Your task to perform on an android device: remove spam from my inbox in the gmail app Image 0: 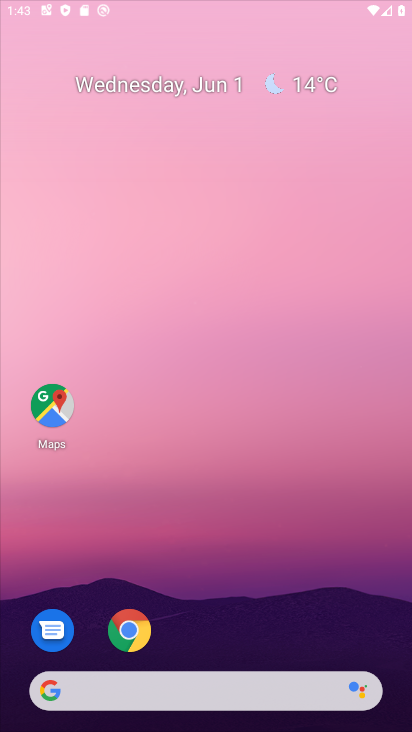
Step 0: press home button
Your task to perform on an android device: remove spam from my inbox in the gmail app Image 1: 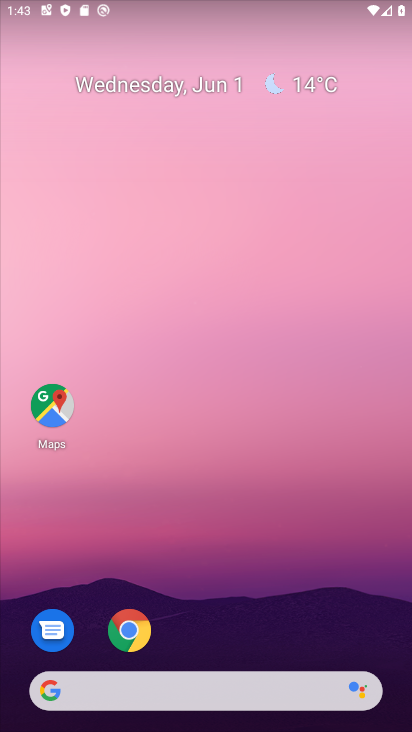
Step 1: drag from (208, 644) to (259, 47)
Your task to perform on an android device: remove spam from my inbox in the gmail app Image 2: 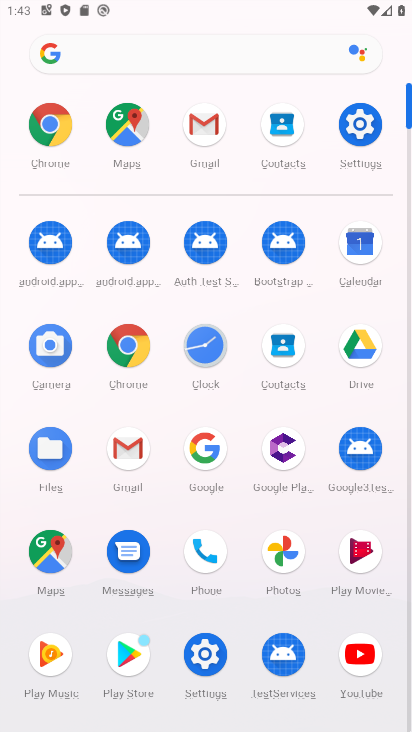
Step 2: click (126, 442)
Your task to perform on an android device: remove spam from my inbox in the gmail app Image 3: 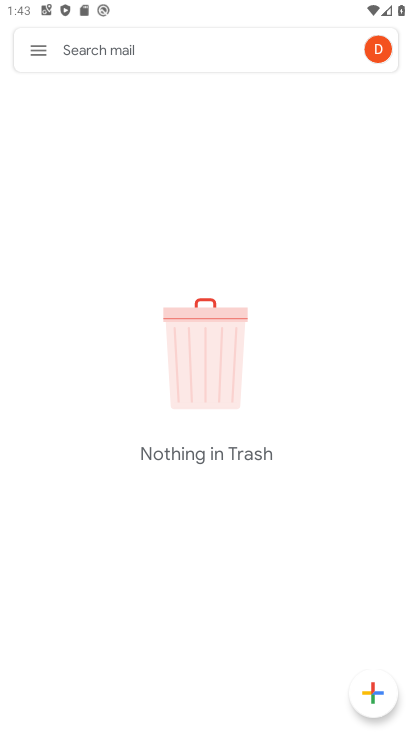
Step 3: click (34, 44)
Your task to perform on an android device: remove spam from my inbox in the gmail app Image 4: 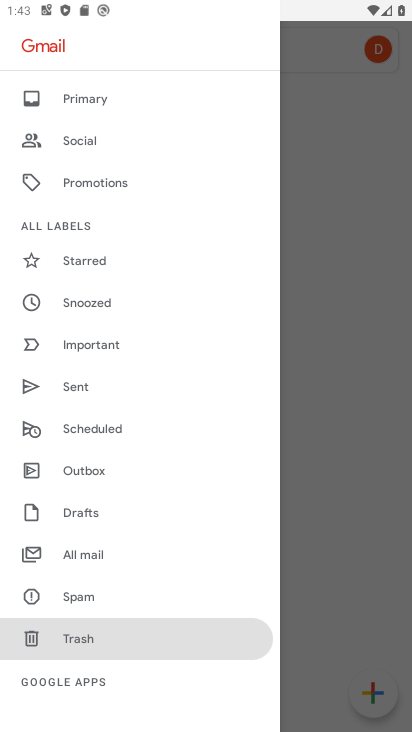
Step 4: click (111, 595)
Your task to perform on an android device: remove spam from my inbox in the gmail app Image 5: 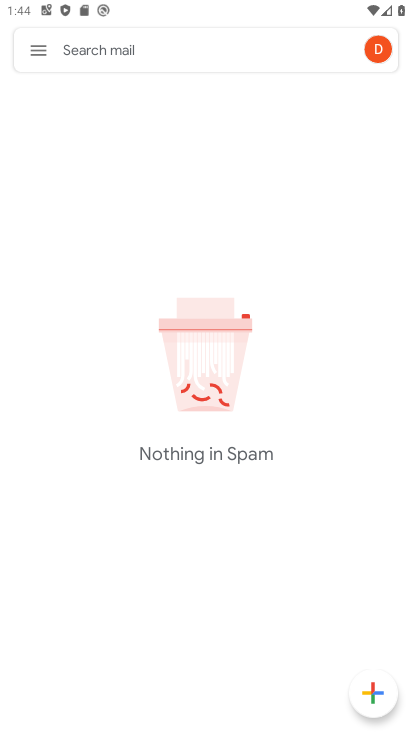
Step 5: task complete